Your task to perform on an android device: Open the web browser Image 0: 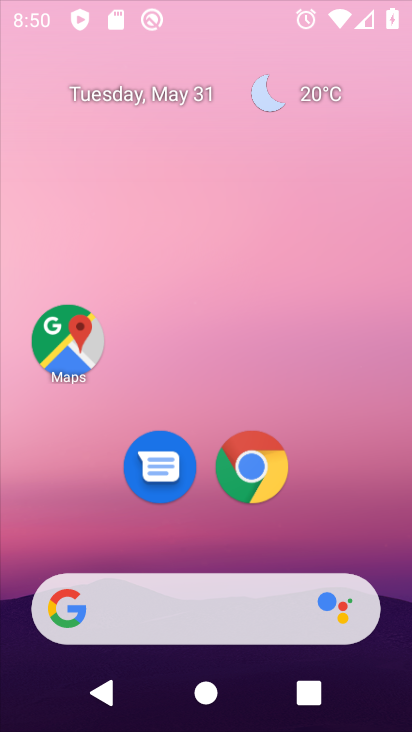
Step 0: drag from (235, 523) to (280, 289)
Your task to perform on an android device: Open the web browser Image 1: 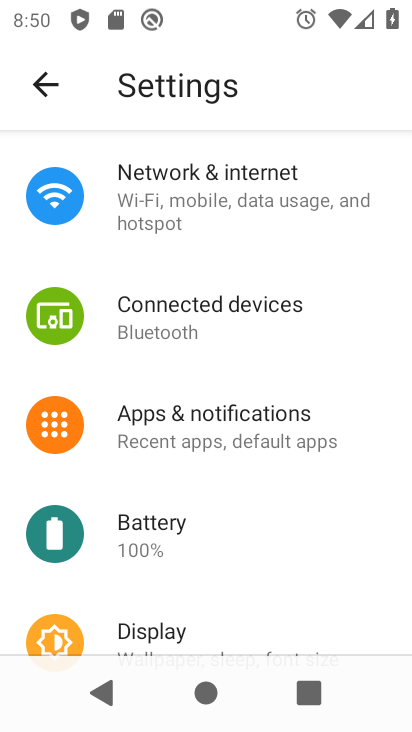
Step 1: press home button
Your task to perform on an android device: Open the web browser Image 2: 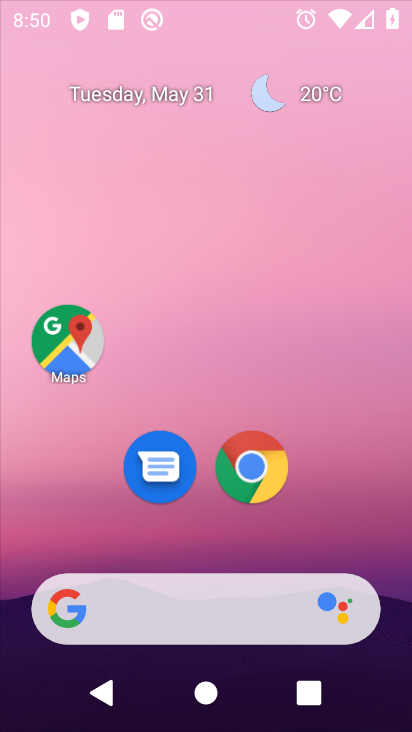
Step 2: drag from (241, 533) to (355, 49)
Your task to perform on an android device: Open the web browser Image 3: 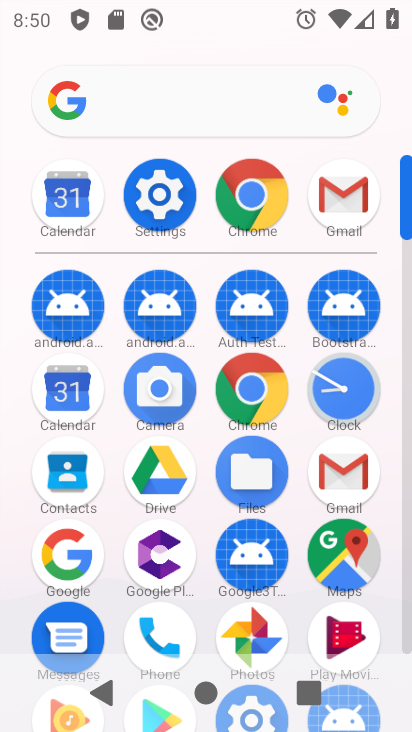
Step 3: click (248, 199)
Your task to perform on an android device: Open the web browser Image 4: 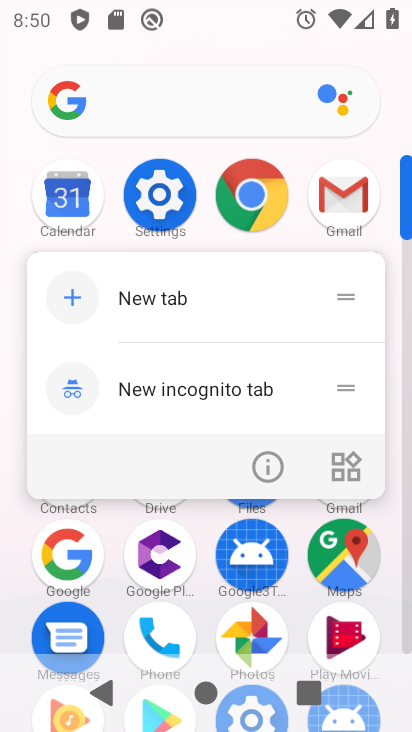
Step 4: click (269, 474)
Your task to perform on an android device: Open the web browser Image 5: 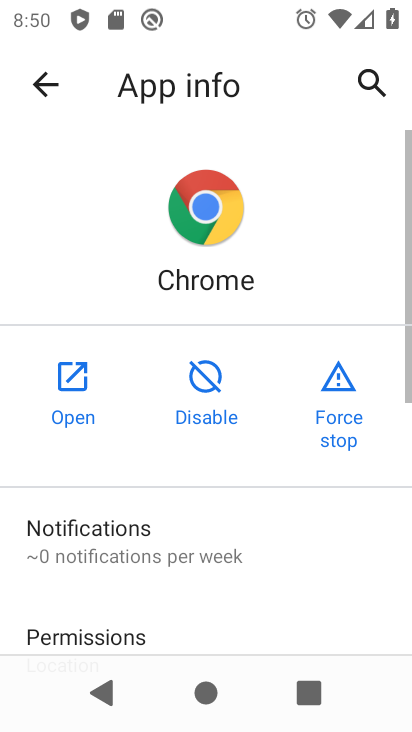
Step 5: click (45, 384)
Your task to perform on an android device: Open the web browser Image 6: 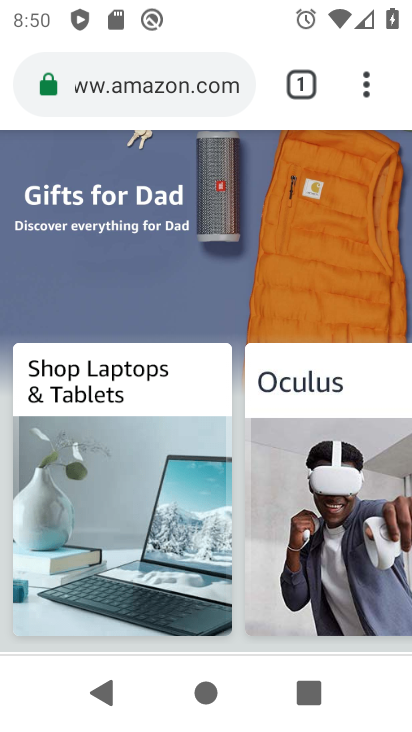
Step 6: task complete